Your task to perform on an android device: toggle priority inbox in the gmail app Image 0: 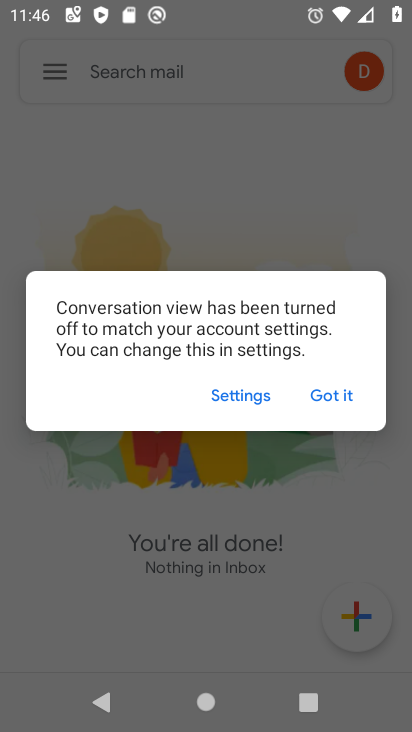
Step 0: press home button
Your task to perform on an android device: toggle priority inbox in the gmail app Image 1: 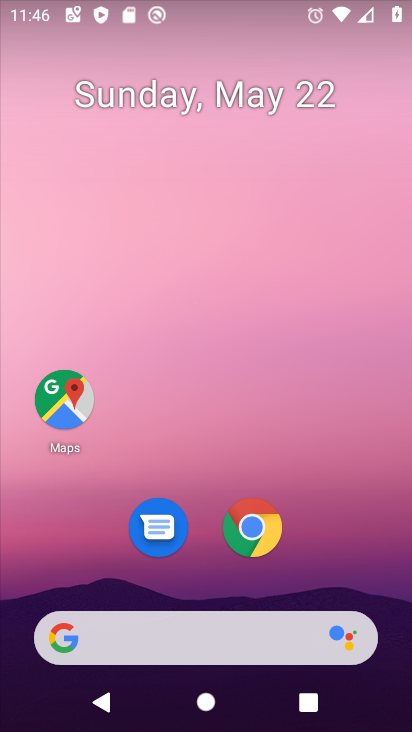
Step 1: drag from (368, 562) to (311, 32)
Your task to perform on an android device: toggle priority inbox in the gmail app Image 2: 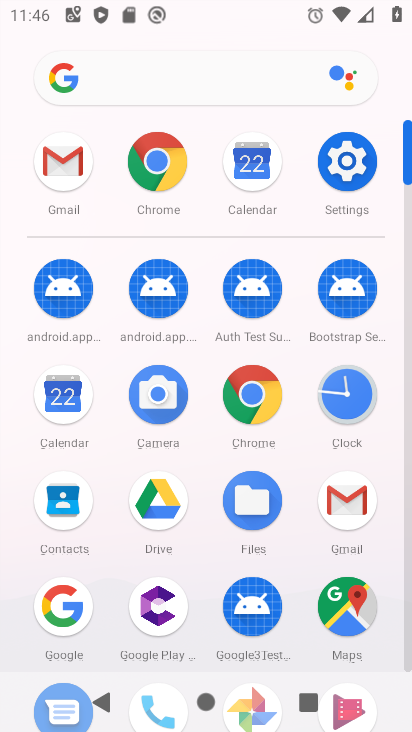
Step 2: click (70, 171)
Your task to perform on an android device: toggle priority inbox in the gmail app Image 3: 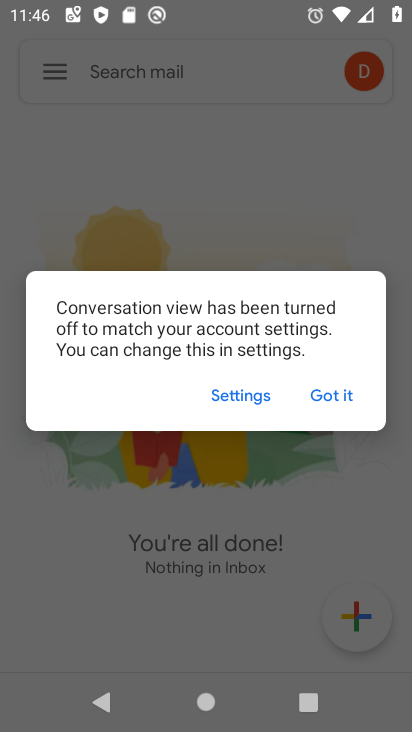
Step 3: click (319, 381)
Your task to perform on an android device: toggle priority inbox in the gmail app Image 4: 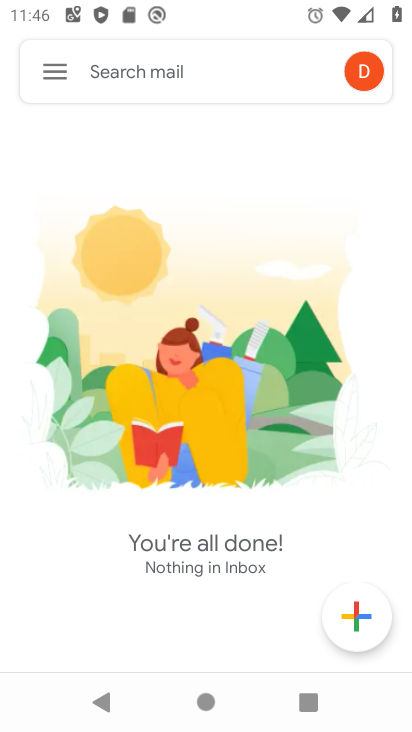
Step 4: click (67, 70)
Your task to perform on an android device: toggle priority inbox in the gmail app Image 5: 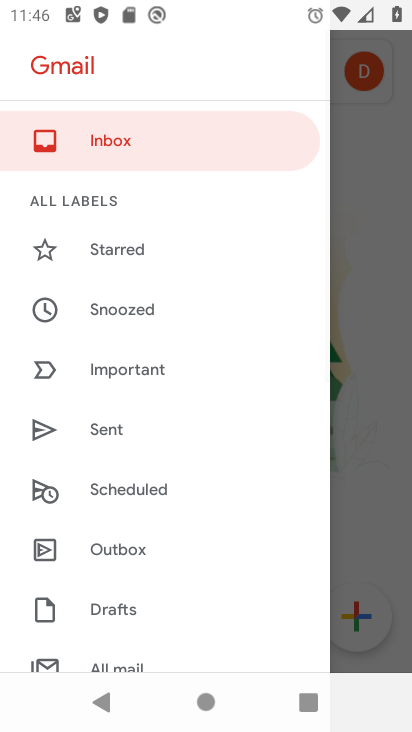
Step 5: drag from (127, 580) to (155, 358)
Your task to perform on an android device: toggle priority inbox in the gmail app Image 6: 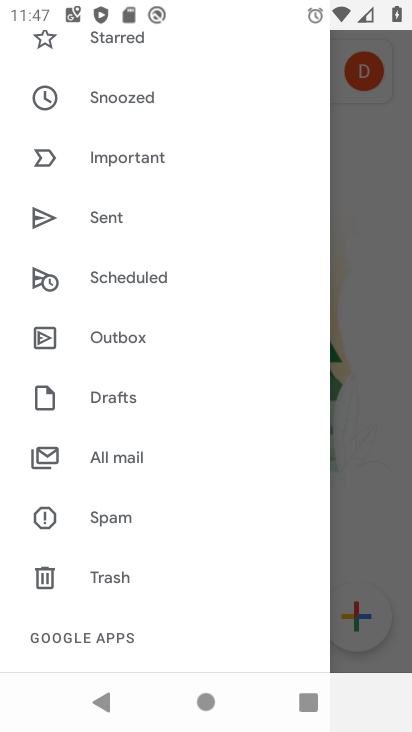
Step 6: click (140, 464)
Your task to perform on an android device: toggle priority inbox in the gmail app Image 7: 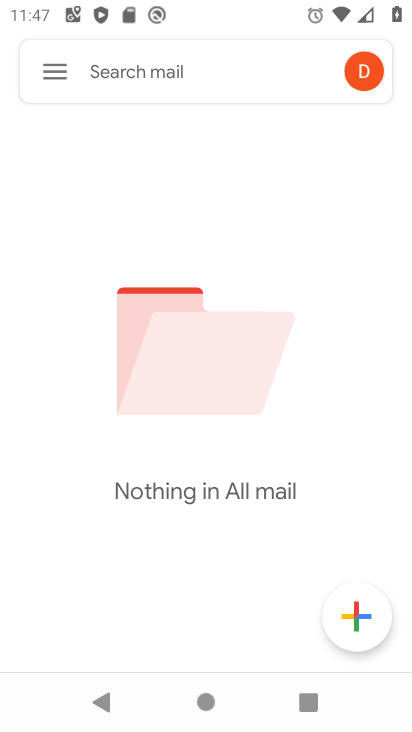
Step 7: task complete